Your task to perform on an android device: snooze an email in the gmail app Image 0: 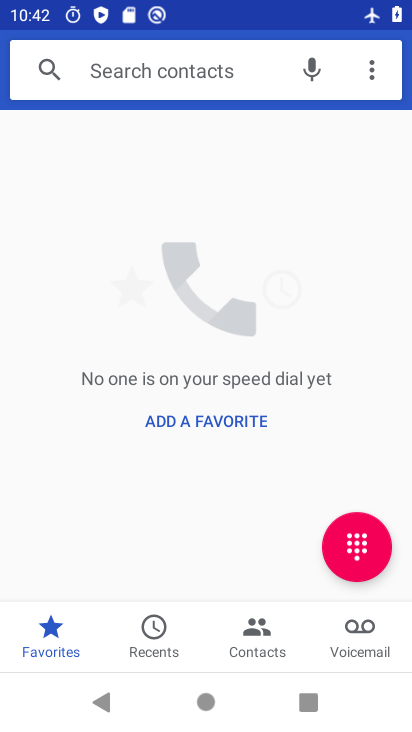
Step 0: press home button
Your task to perform on an android device: snooze an email in the gmail app Image 1: 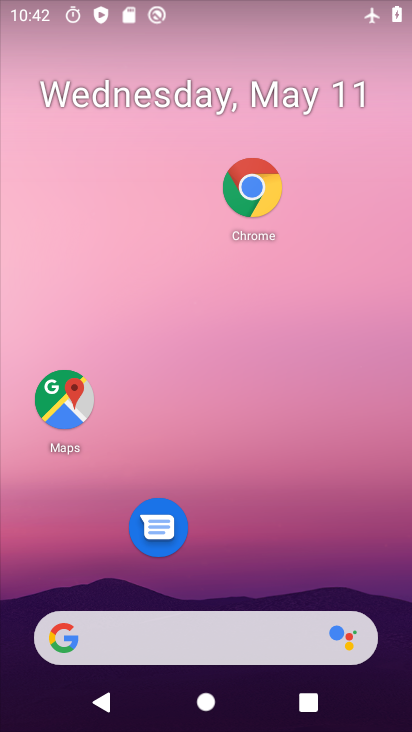
Step 1: drag from (302, 591) to (280, 230)
Your task to perform on an android device: snooze an email in the gmail app Image 2: 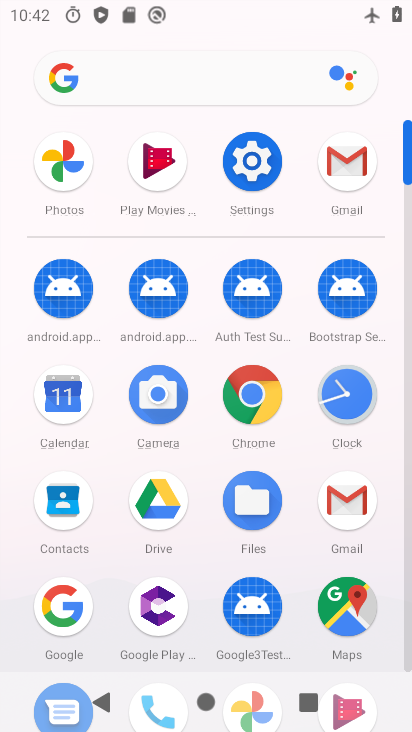
Step 2: click (338, 168)
Your task to perform on an android device: snooze an email in the gmail app Image 3: 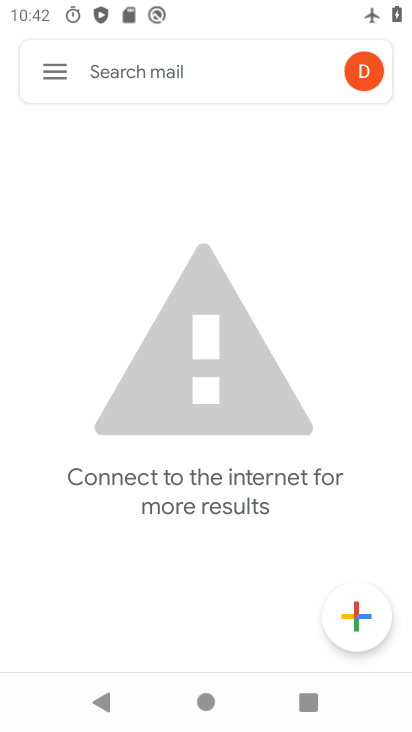
Step 3: click (53, 70)
Your task to perform on an android device: snooze an email in the gmail app Image 4: 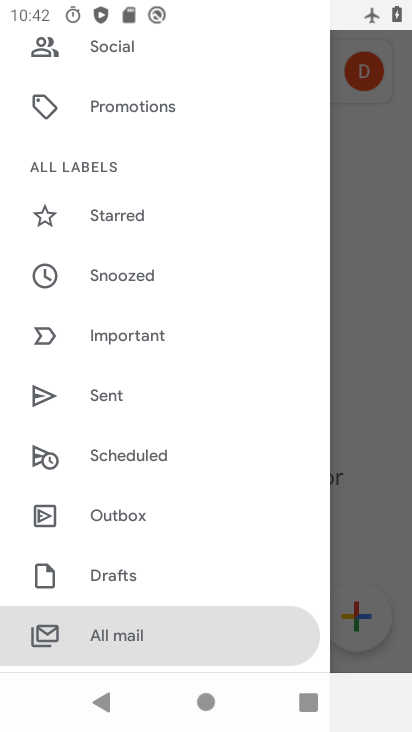
Step 4: click (149, 282)
Your task to perform on an android device: snooze an email in the gmail app Image 5: 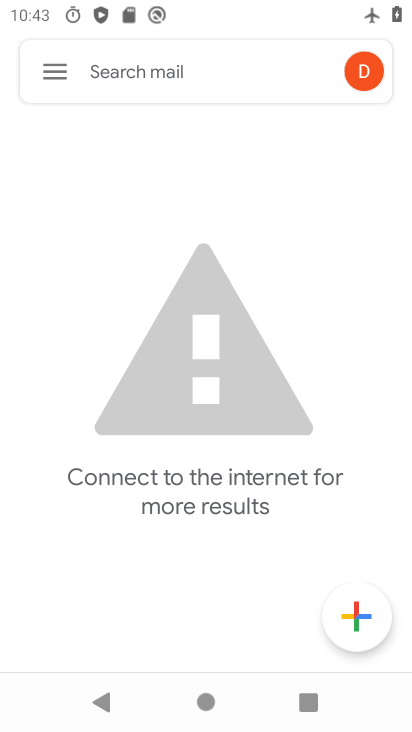
Step 5: task complete